Your task to perform on an android device: turn off location Image 0: 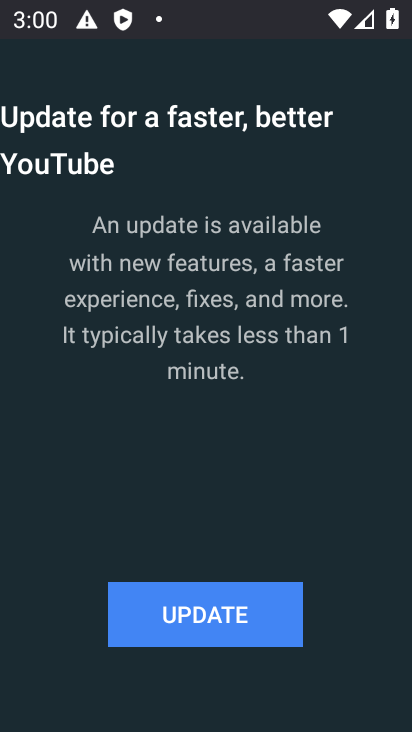
Step 0: press home button
Your task to perform on an android device: turn off location Image 1: 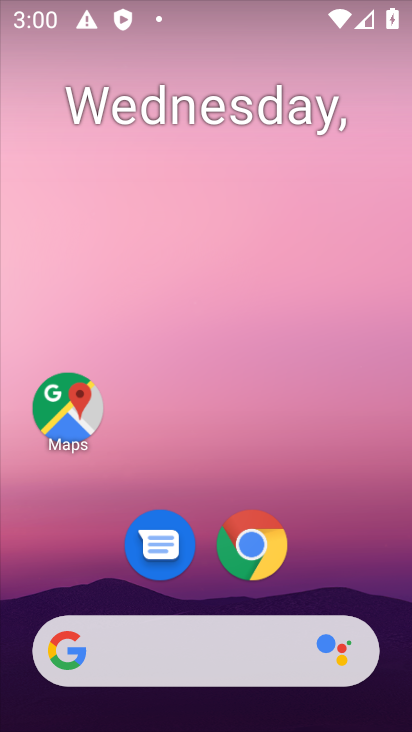
Step 1: drag from (260, 619) to (250, 110)
Your task to perform on an android device: turn off location Image 2: 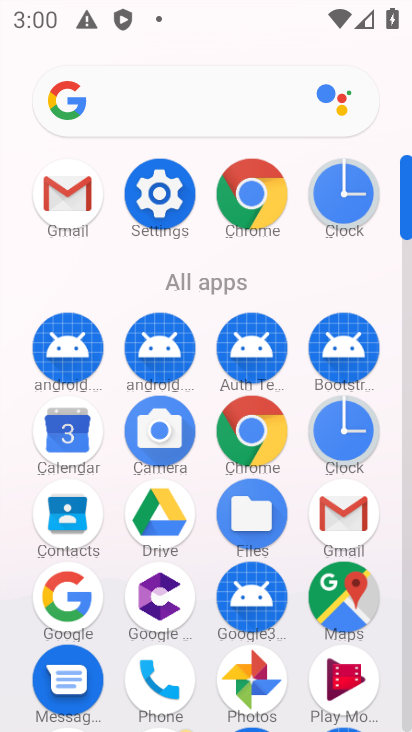
Step 2: click (164, 184)
Your task to perform on an android device: turn off location Image 3: 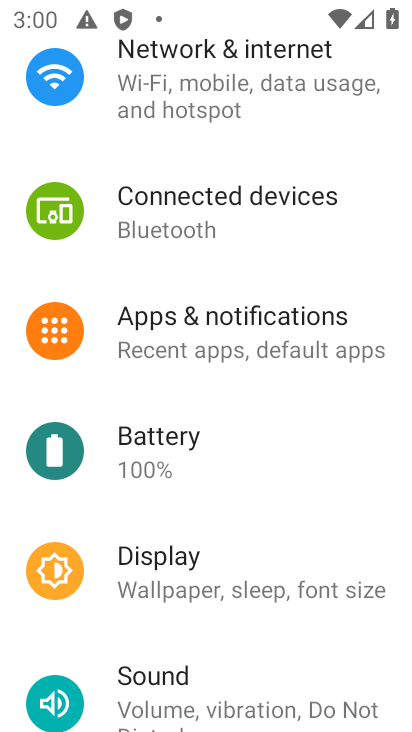
Step 3: drag from (177, 642) to (212, 117)
Your task to perform on an android device: turn off location Image 4: 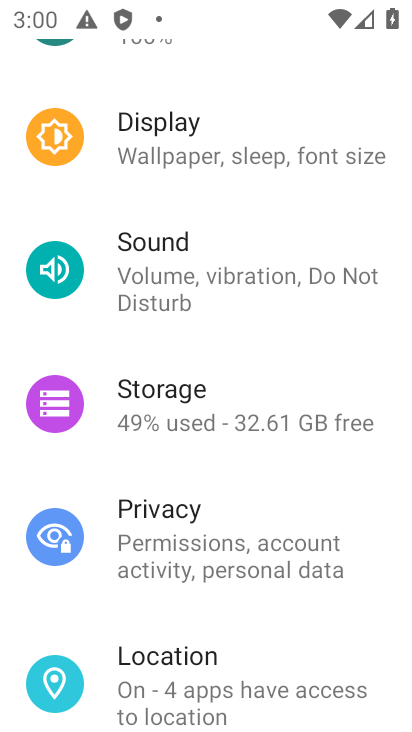
Step 4: click (203, 685)
Your task to perform on an android device: turn off location Image 5: 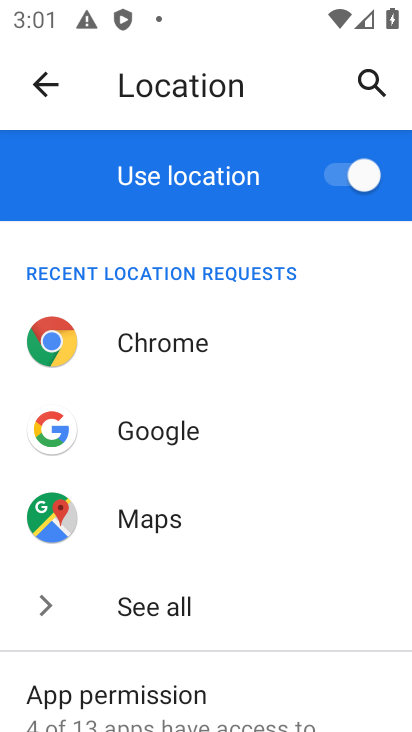
Step 5: drag from (203, 685) to (231, 251)
Your task to perform on an android device: turn off location Image 6: 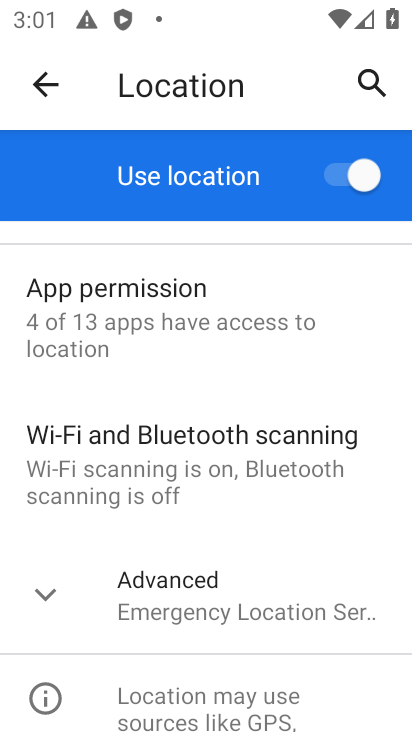
Step 6: click (181, 631)
Your task to perform on an android device: turn off location Image 7: 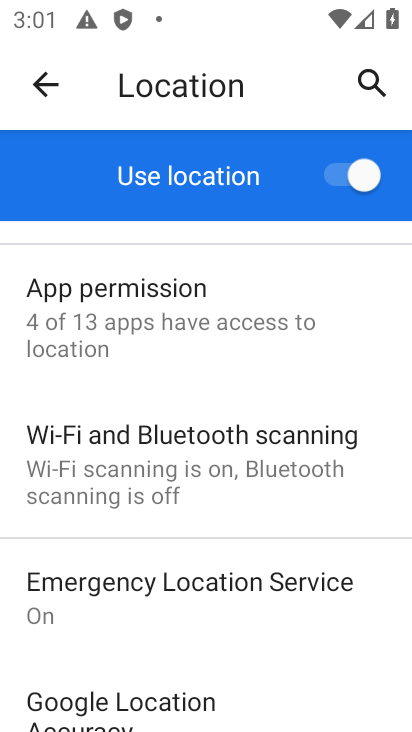
Step 7: drag from (175, 698) to (207, 451)
Your task to perform on an android device: turn off location Image 8: 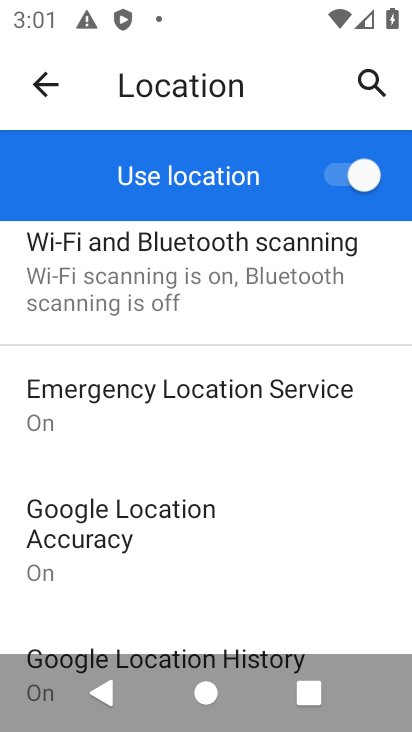
Step 8: drag from (219, 584) to (241, 398)
Your task to perform on an android device: turn off location Image 9: 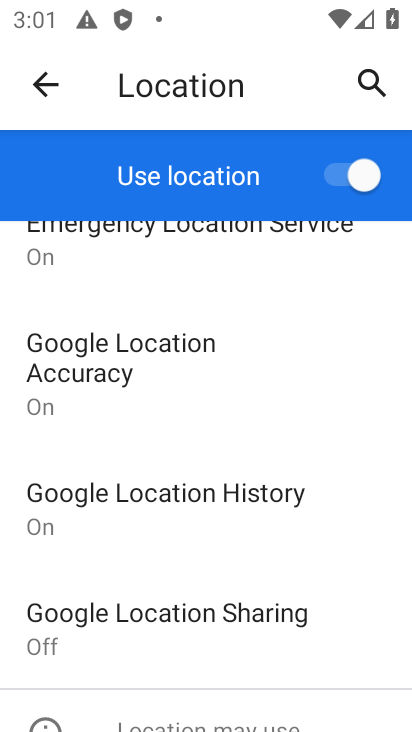
Step 9: click (344, 182)
Your task to perform on an android device: turn off location Image 10: 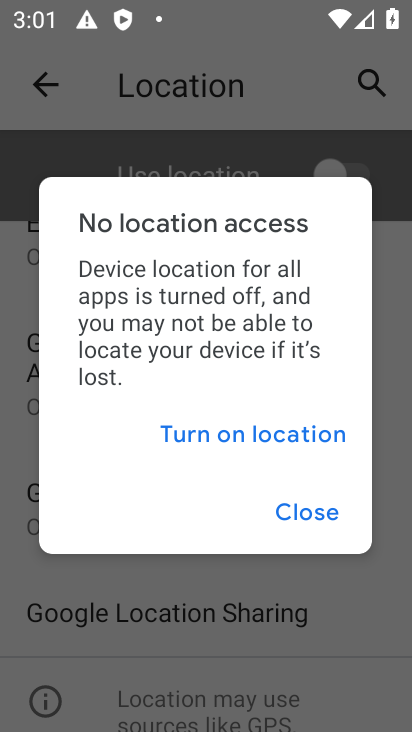
Step 10: click (291, 510)
Your task to perform on an android device: turn off location Image 11: 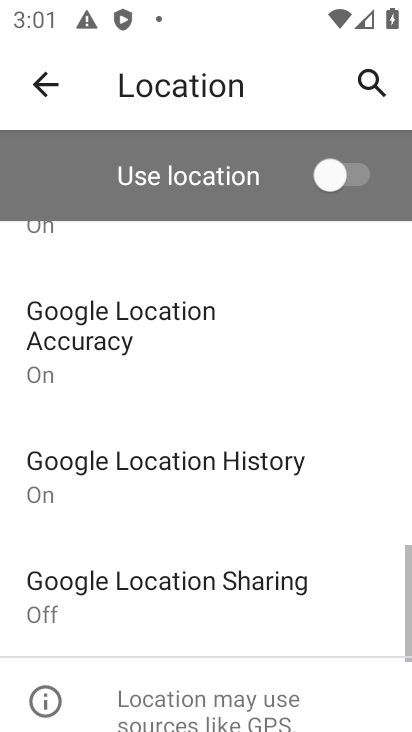
Step 11: task complete